Your task to perform on an android device: Search for "logitech g933" on costco, select the first entry, add it to the cart, then select checkout. Image 0: 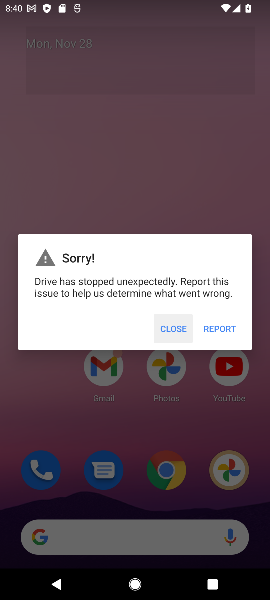
Step 0: press home button
Your task to perform on an android device: Search for "logitech g933" on costco, select the first entry, add it to the cart, then select checkout. Image 1: 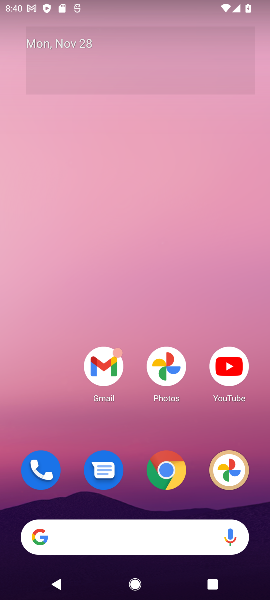
Step 1: drag from (130, 473) to (128, 133)
Your task to perform on an android device: Search for "logitech g933" on costco, select the first entry, add it to the cart, then select checkout. Image 2: 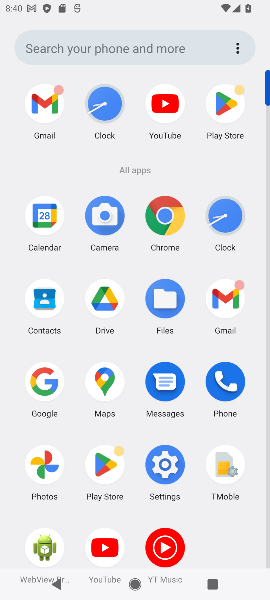
Step 2: click (52, 375)
Your task to perform on an android device: Search for "logitech g933" on costco, select the first entry, add it to the cart, then select checkout. Image 3: 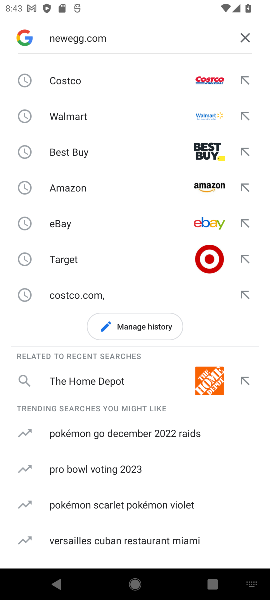
Step 3: press home button
Your task to perform on an android device: Search for "logitech g933" on costco, select the first entry, add it to the cart, then select checkout. Image 4: 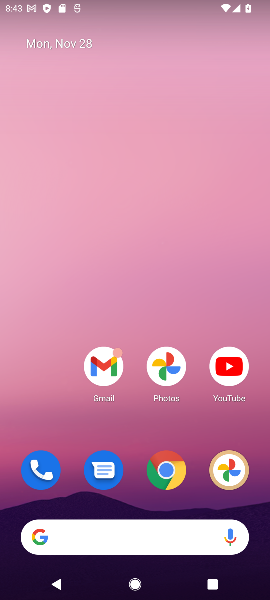
Step 4: drag from (159, 410) to (202, 66)
Your task to perform on an android device: Search for "logitech g933" on costco, select the first entry, add it to the cart, then select checkout. Image 5: 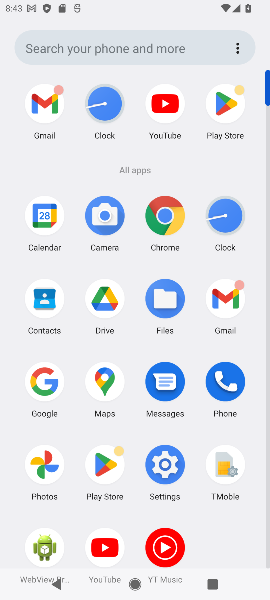
Step 5: click (36, 388)
Your task to perform on an android device: Search for "logitech g933" on costco, select the first entry, add it to the cart, then select checkout. Image 6: 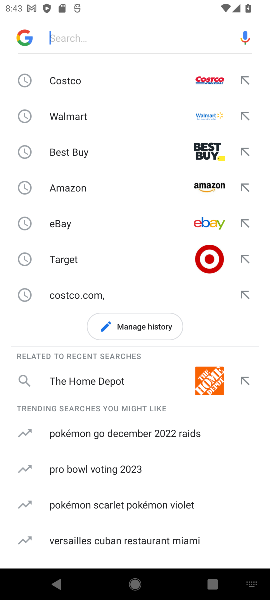
Step 6: click (71, 78)
Your task to perform on an android device: Search for "logitech g933" on costco, select the first entry, add it to the cart, then select checkout. Image 7: 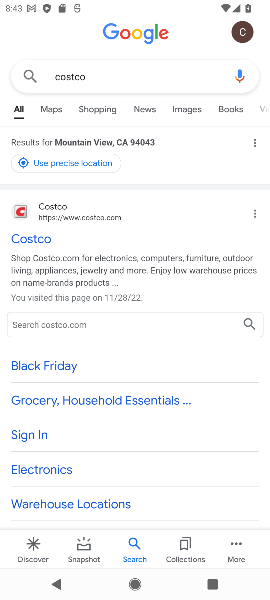
Step 7: click (33, 242)
Your task to perform on an android device: Search for "logitech g933" on costco, select the first entry, add it to the cart, then select checkout. Image 8: 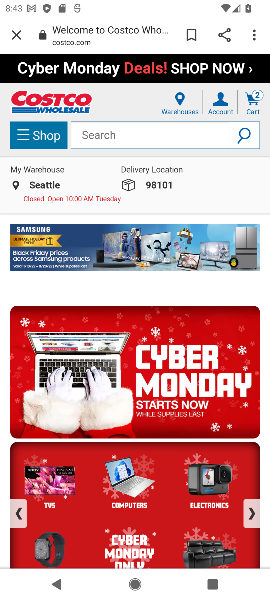
Step 8: click (154, 139)
Your task to perform on an android device: Search for "logitech g933" on costco, select the first entry, add it to the cart, then select checkout. Image 9: 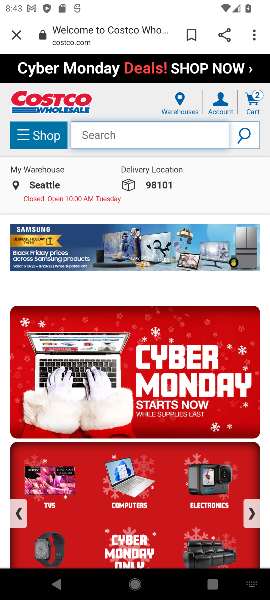
Step 9: type "logitech g933"
Your task to perform on an android device: Search for "logitech g933" on costco, select the first entry, add it to the cart, then select checkout. Image 10: 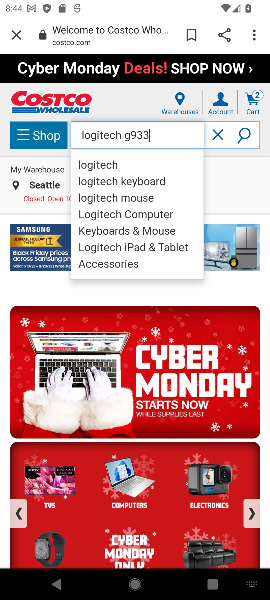
Step 10: click (244, 136)
Your task to perform on an android device: Search for "logitech g933" on costco, select the first entry, add it to the cart, then select checkout. Image 11: 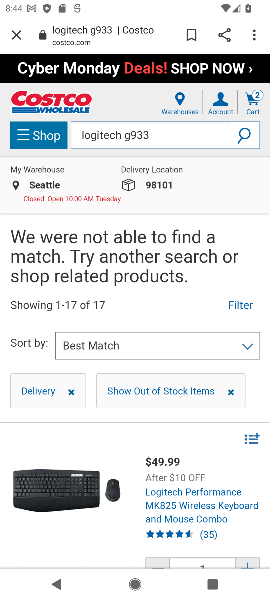
Step 11: drag from (151, 385) to (167, 308)
Your task to perform on an android device: Search for "logitech g933" on costco, select the first entry, add it to the cart, then select checkout. Image 12: 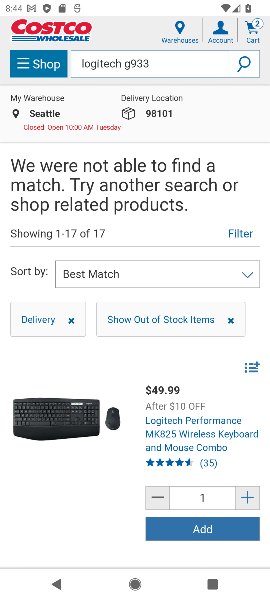
Step 12: click (189, 534)
Your task to perform on an android device: Search for "logitech g933" on costco, select the first entry, add it to the cart, then select checkout. Image 13: 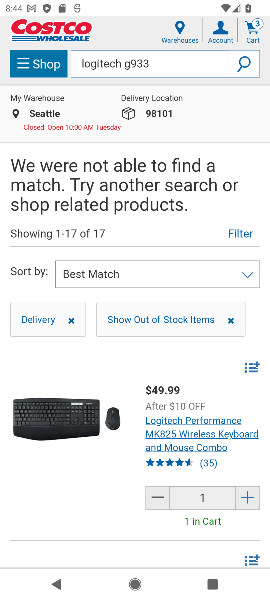
Step 13: click (256, 18)
Your task to perform on an android device: Search for "logitech g933" on costco, select the first entry, add it to the cart, then select checkout. Image 14: 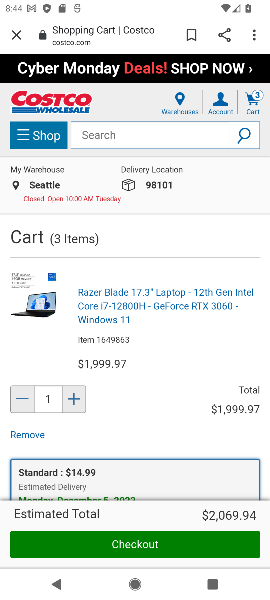
Step 14: click (146, 542)
Your task to perform on an android device: Search for "logitech g933" on costco, select the first entry, add it to the cart, then select checkout. Image 15: 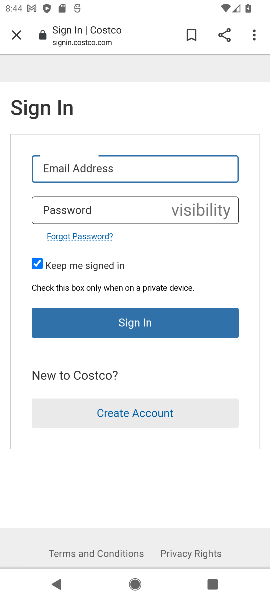
Step 15: task complete